Your task to perform on an android device: Go to notification settings Image 0: 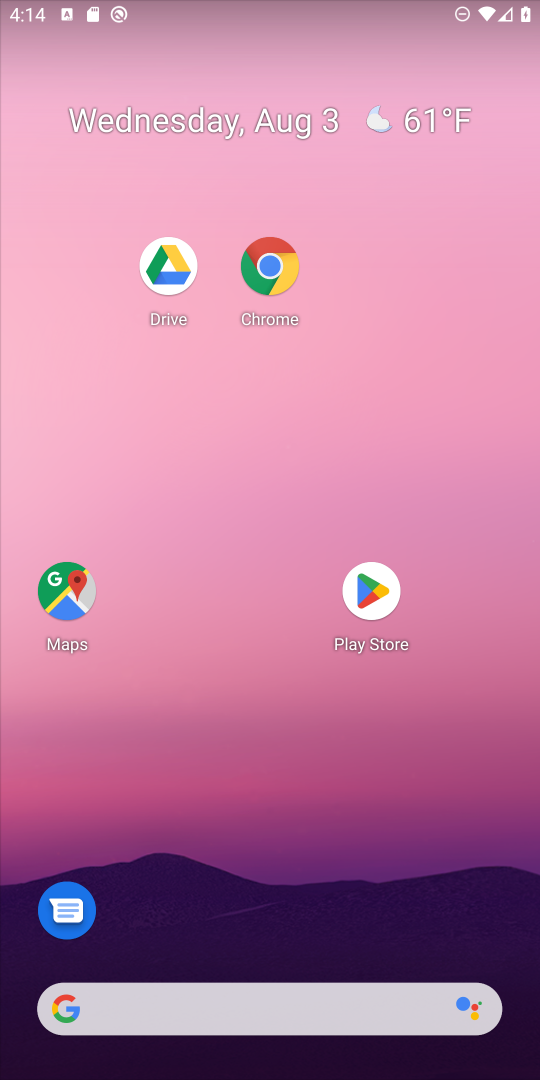
Step 0: drag from (316, 960) to (408, 130)
Your task to perform on an android device: Go to notification settings Image 1: 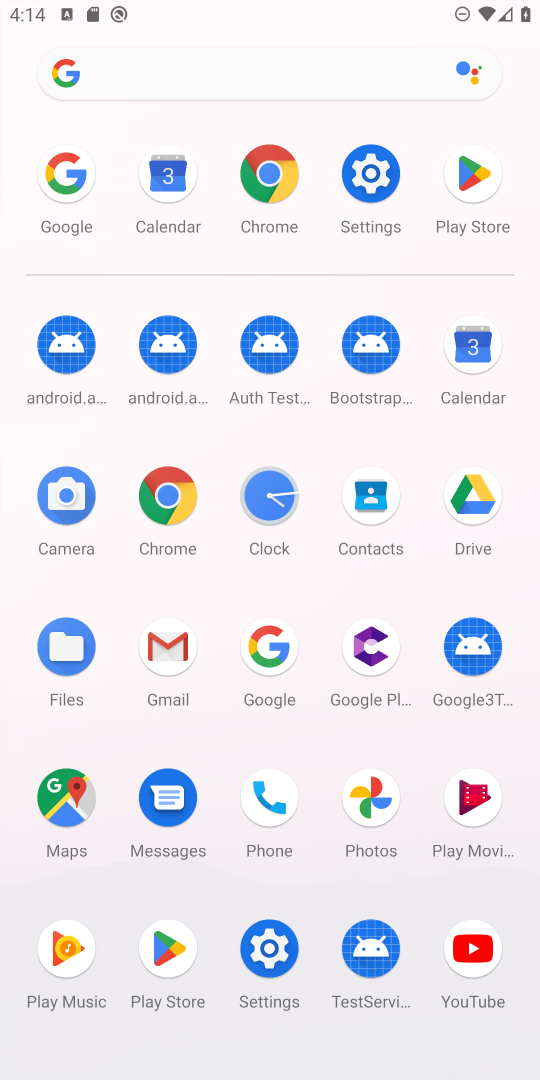
Step 1: click (378, 174)
Your task to perform on an android device: Go to notification settings Image 2: 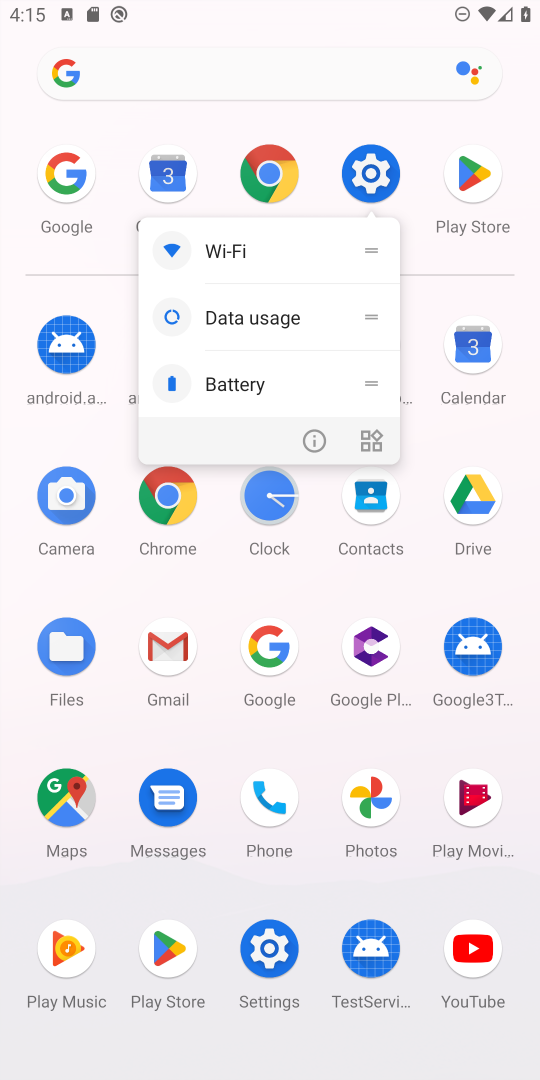
Step 2: click (364, 172)
Your task to perform on an android device: Go to notification settings Image 3: 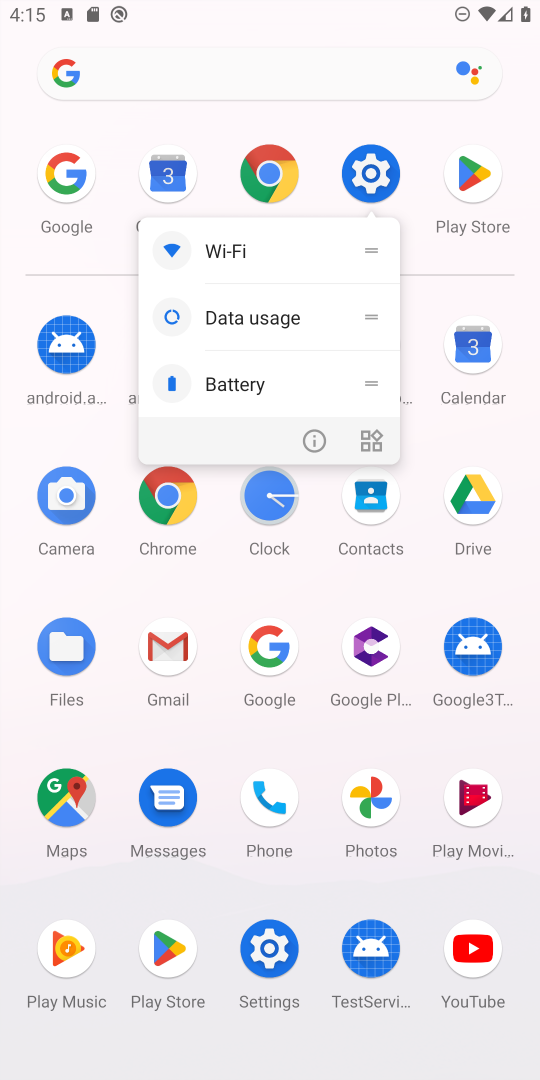
Step 3: click (364, 172)
Your task to perform on an android device: Go to notification settings Image 4: 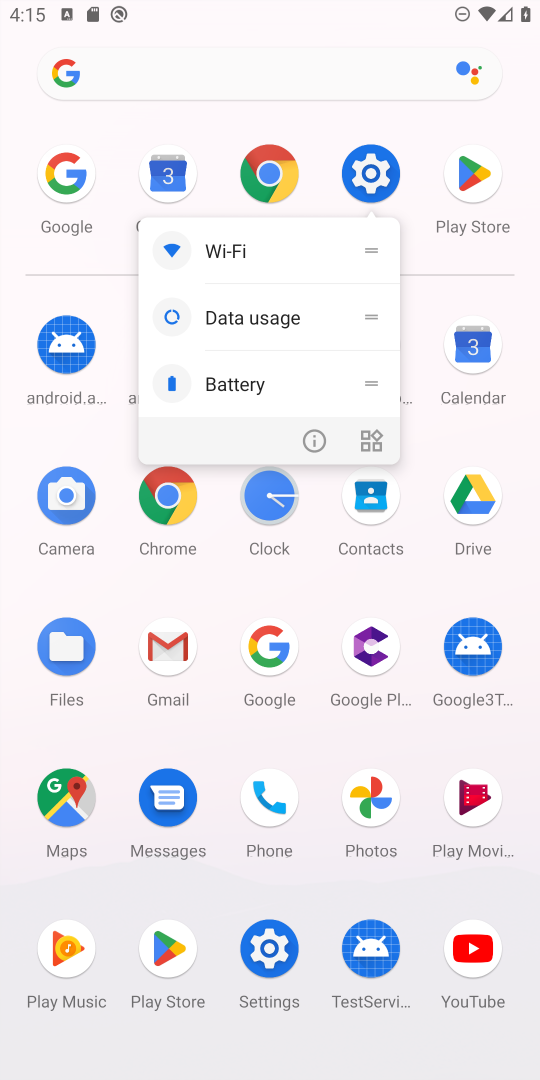
Step 4: click (364, 172)
Your task to perform on an android device: Go to notification settings Image 5: 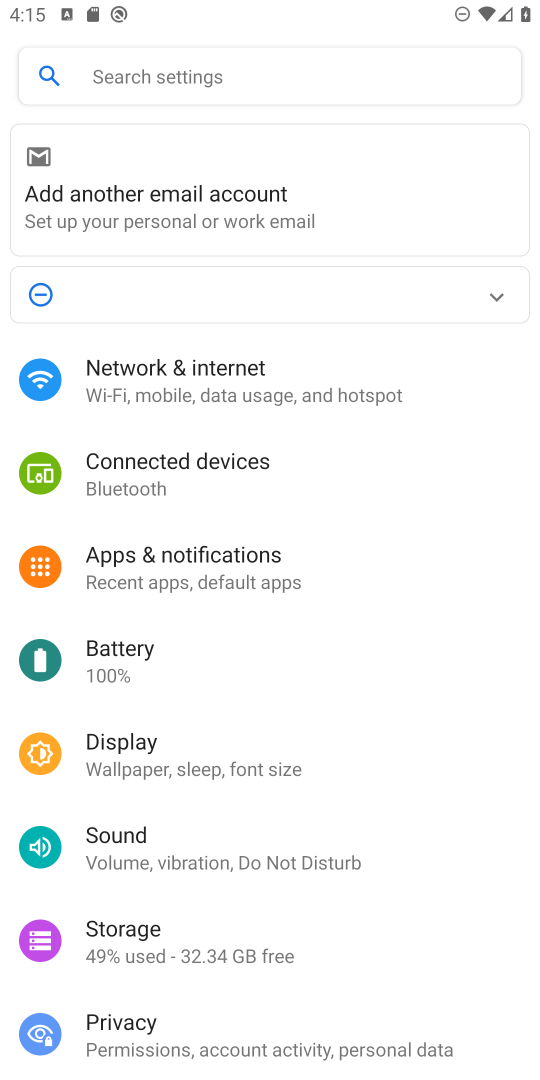
Step 5: click (178, 591)
Your task to perform on an android device: Go to notification settings Image 6: 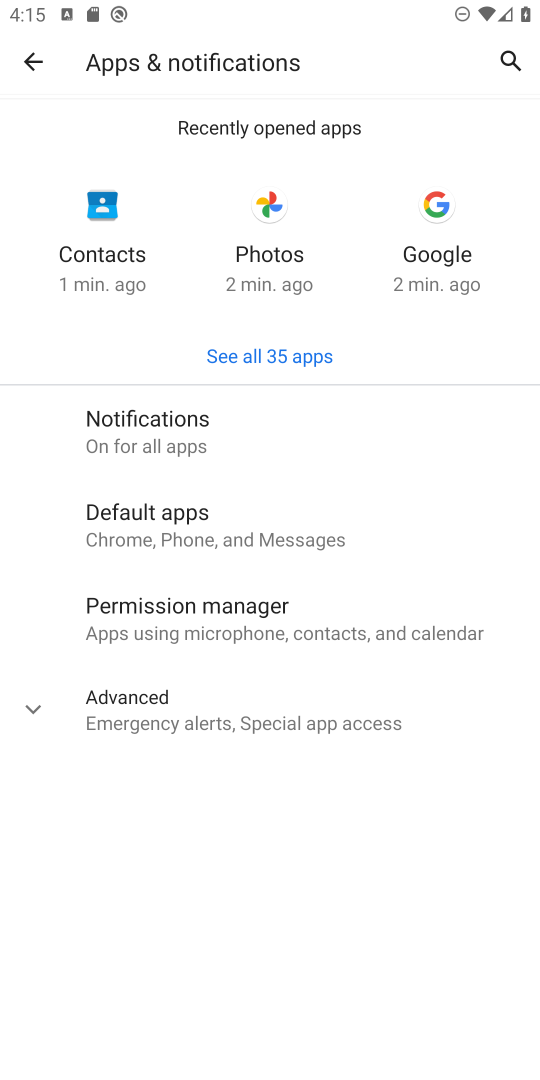
Step 6: click (130, 445)
Your task to perform on an android device: Go to notification settings Image 7: 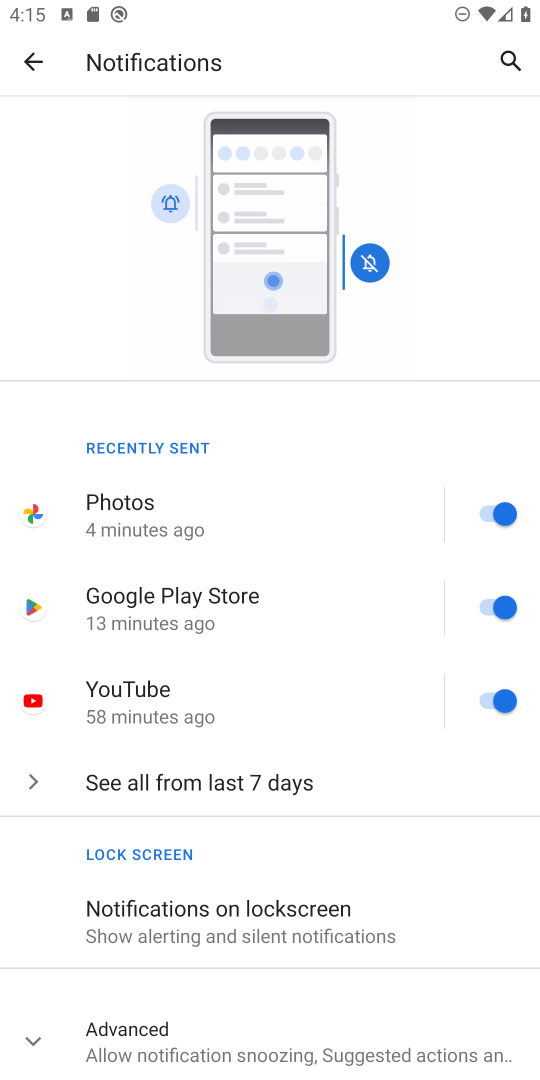
Step 7: task complete